Your task to perform on an android device: What is the news today? Image 0: 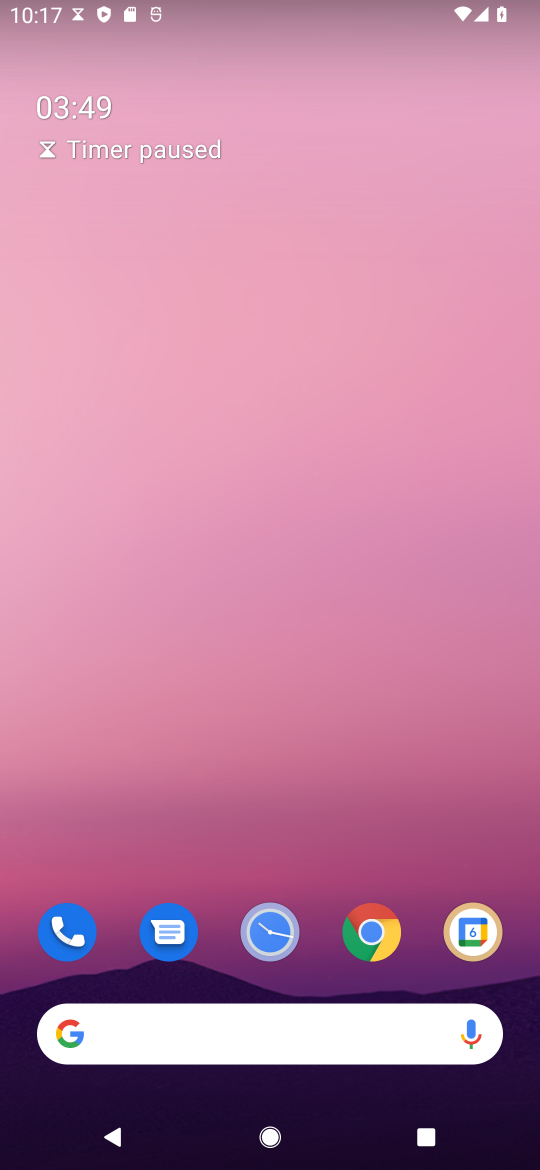
Step 0: drag from (246, 1035) to (188, 437)
Your task to perform on an android device: What is the news today? Image 1: 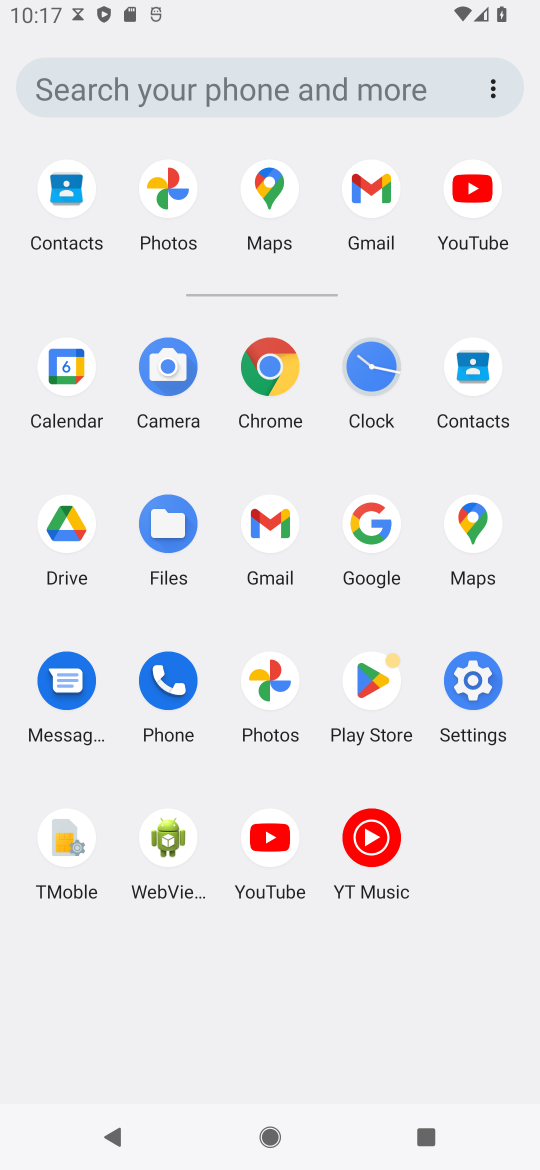
Step 1: click (368, 528)
Your task to perform on an android device: What is the news today? Image 2: 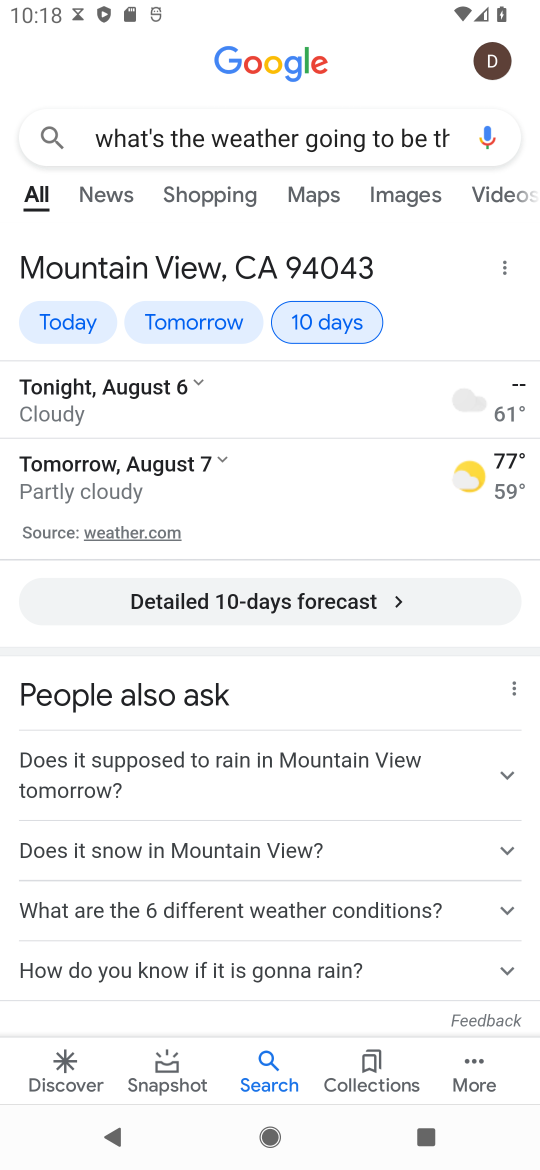
Step 2: click (381, 143)
Your task to perform on an android device: What is the news today? Image 3: 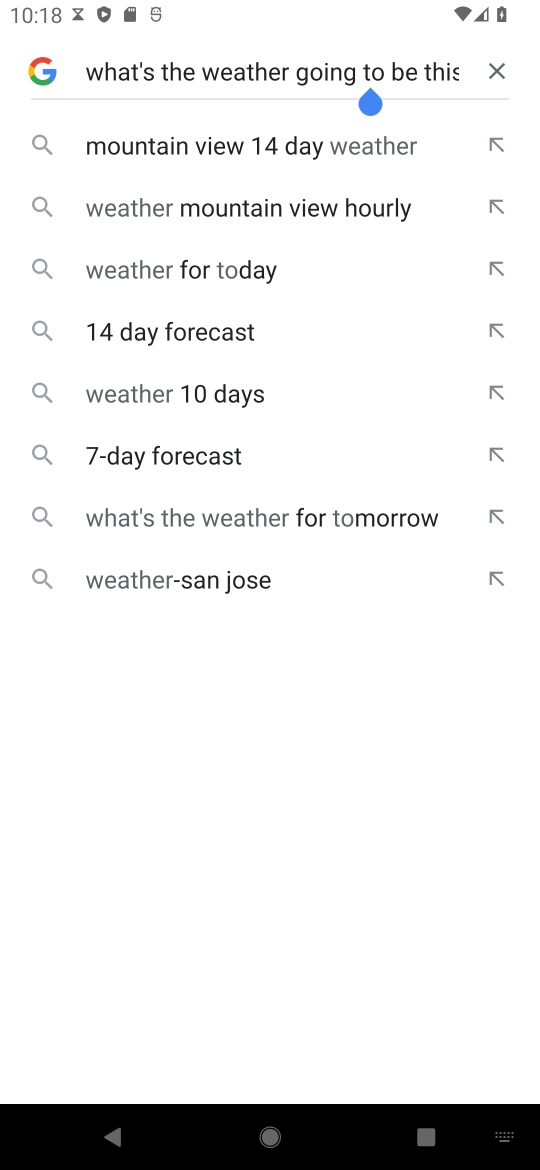
Step 3: click (488, 71)
Your task to perform on an android device: What is the news today? Image 4: 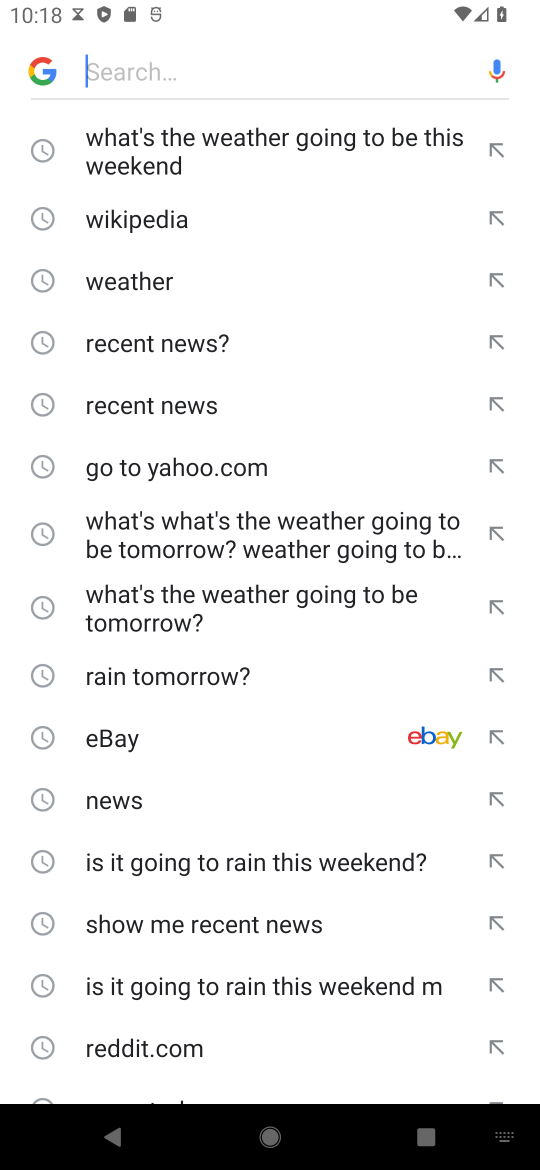
Step 4: type "news today"
Your task to perform on an android device: What is the news today? Image 5: 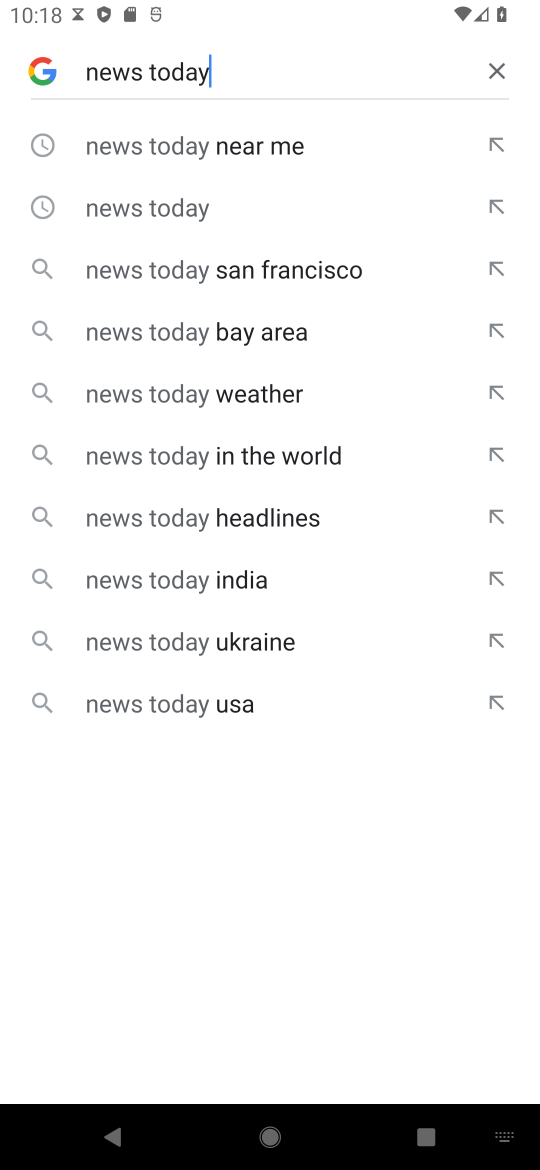
Step 5: click (108, 207)
Your task to perform on an android device: What is the news today? Image 6: 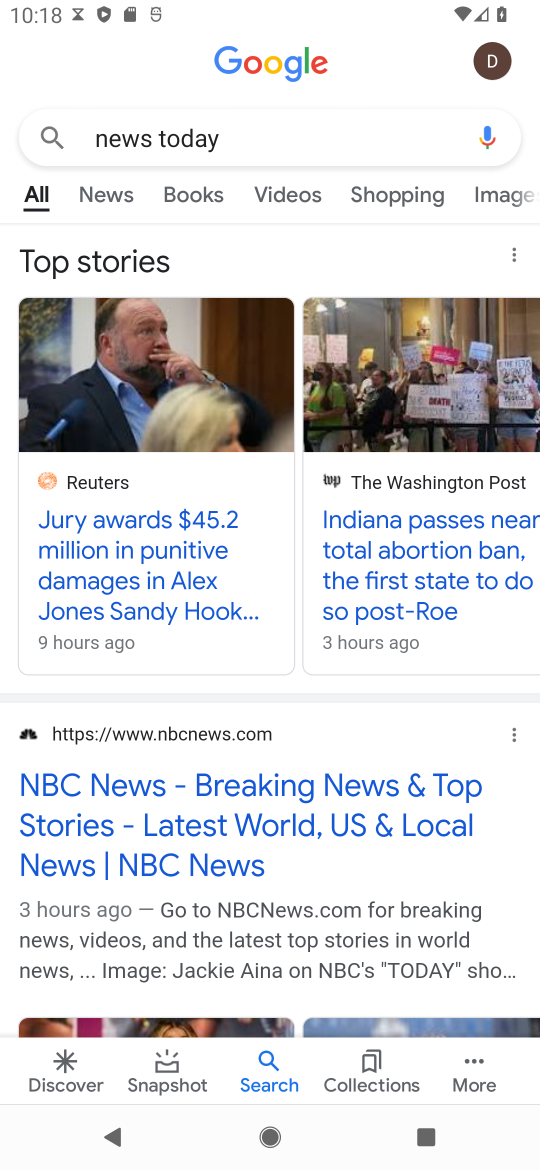
Step 6: click (341, 582)
Your task to perform on an android device: What is the news today? Image 7: 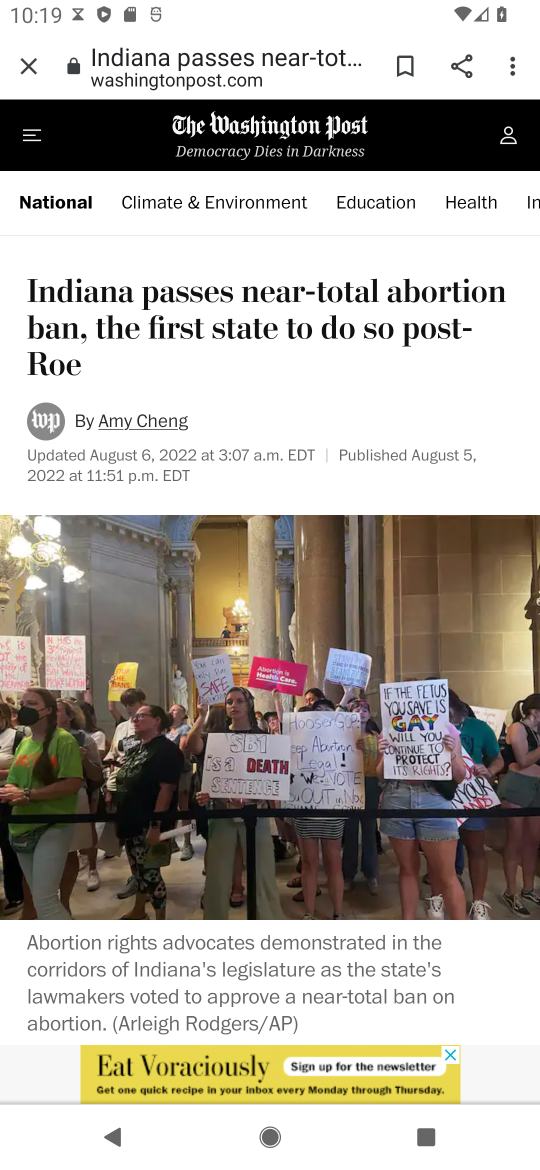
Step 7: task complete